Your task to perform on an android device: Do I have any events today? Image 0: 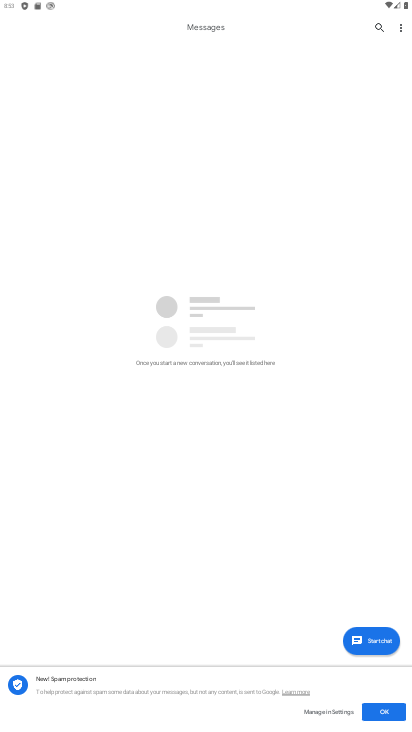
Step 0: press home button
Your task to perform on an android device: Do I have any events today? Image 1: 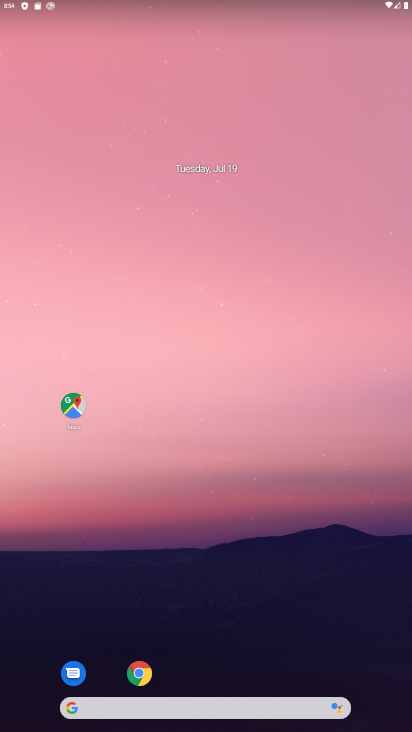
Step 1: drag from (204, 670) to (188, 243)
Your task to perform on an android device: Do I have any events today? Image 2: 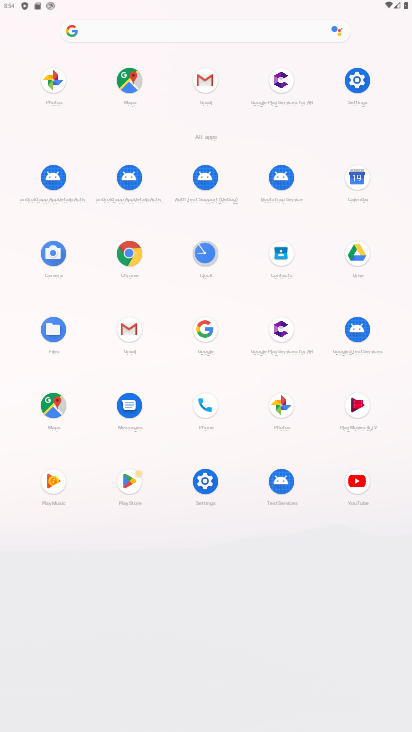
Step 2: click (348, 164)
Your task to perform on an android device: Do I have any events today? Image 3: 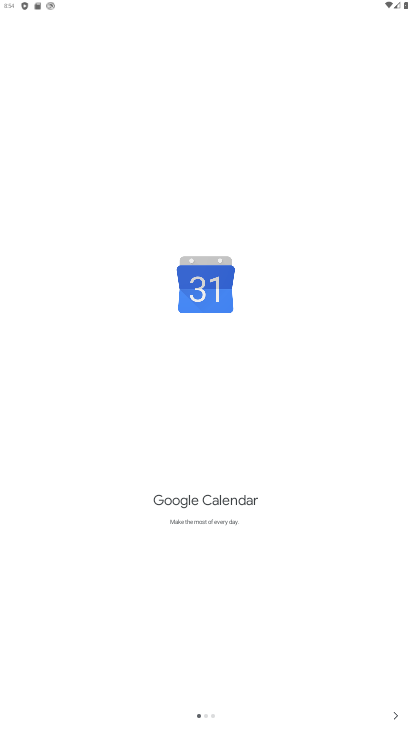
Step 3: click (390, 717)
Your task to perform on an android device: Do I have any events today? Image 4: 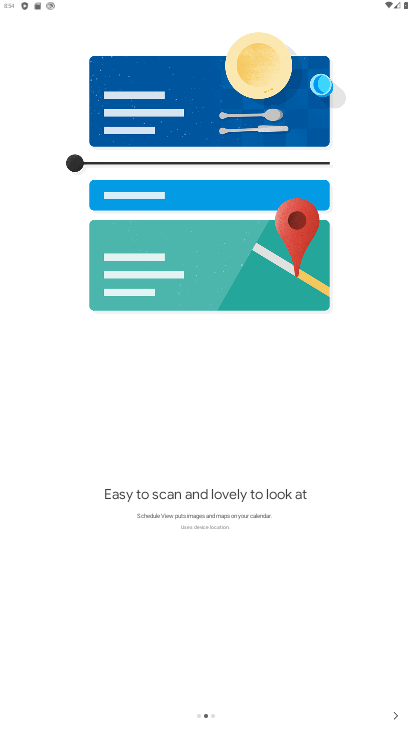
Step 4: click (390, 717)
Your task to perform on an android device: Do I have any events today? Image 5: 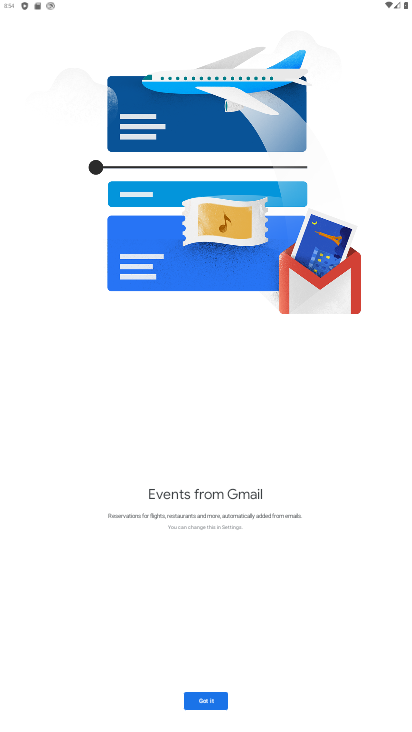
Step 5: click (207, 700)
Your task to perform on an android device: Do I have any events today? Image 6: 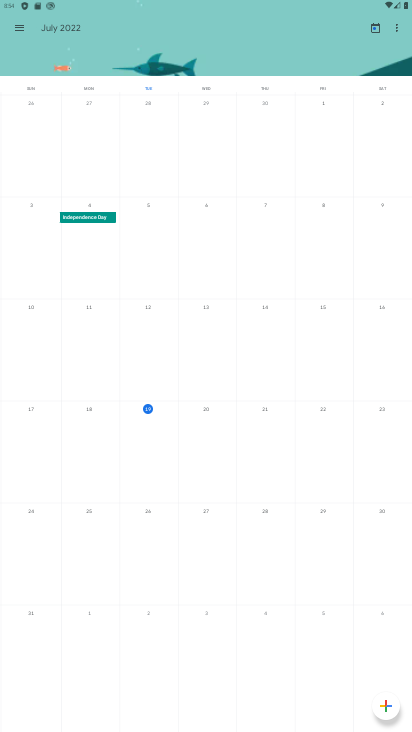
Step 6: click (13, 27)
Your task to perform on an android device: Do I have any events today? Image 7: 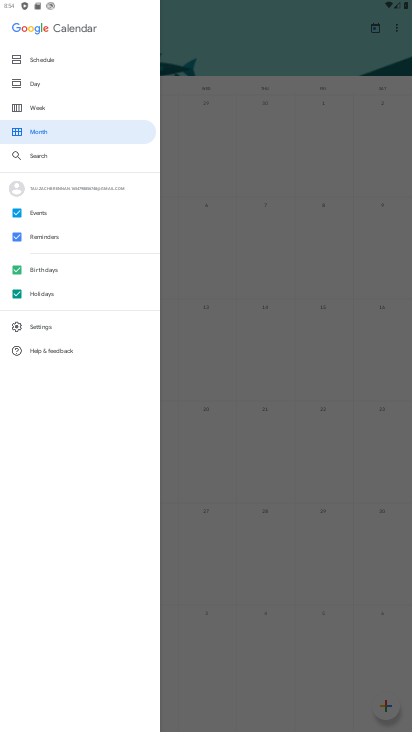
Step 7: click (56, 62)
Your task to perform on an android device: Do I have any events today? Image 8: 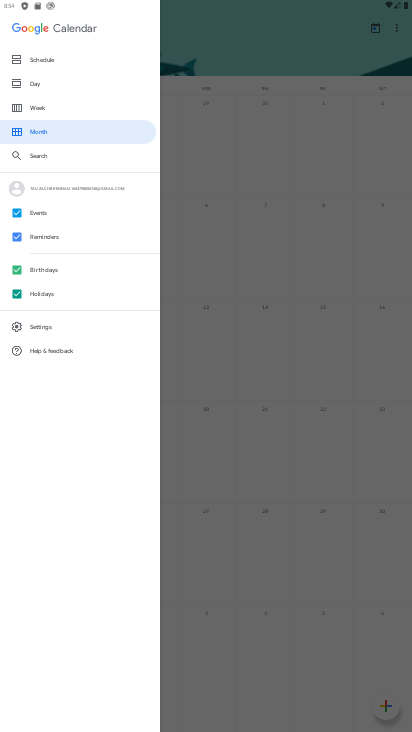
Step 8: click (50, 57)
Your task to perform on an android device: Do I have any events today? Image 9: 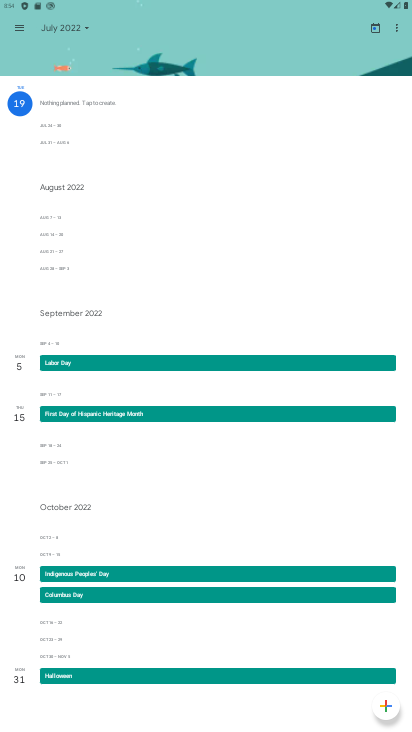
Step 9: task complete